Your task to perform on an android device: Toggle the flashlight Image 0: 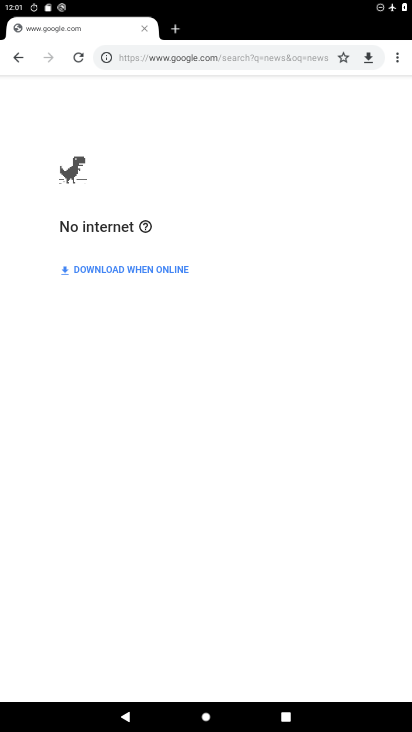
Step 0: press home button
Your task to perform on an android device: Toggle the flashlight Image 1: 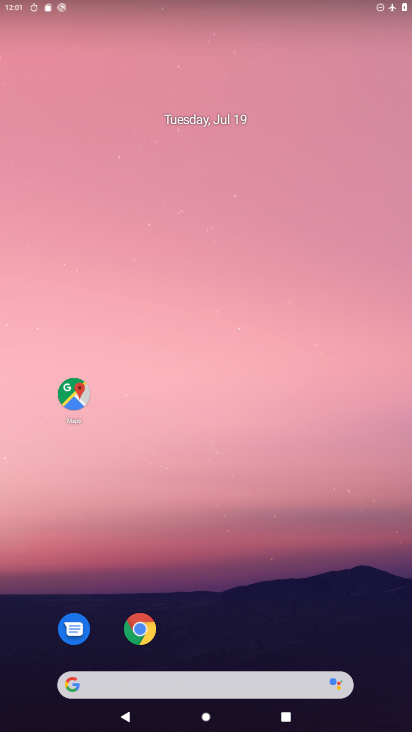
Step 1: drag from (209, 623) to (192, 79)
Your task to perform on an android device: Toggle the flashlight Image 2: 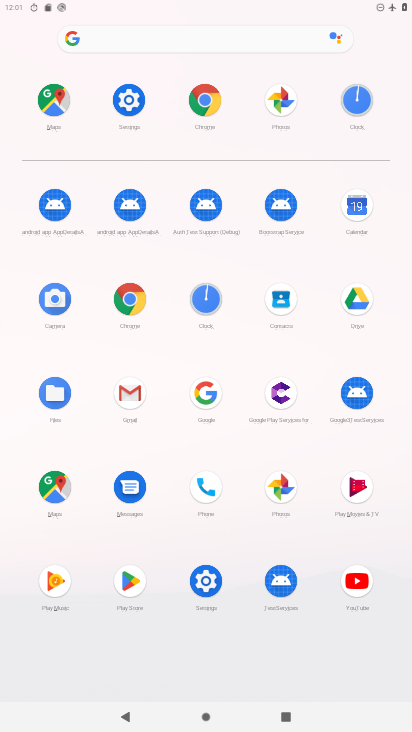
Step 2: click (139, 109)
Your task to perform on an android device: Toggle the flashlight Image 3: 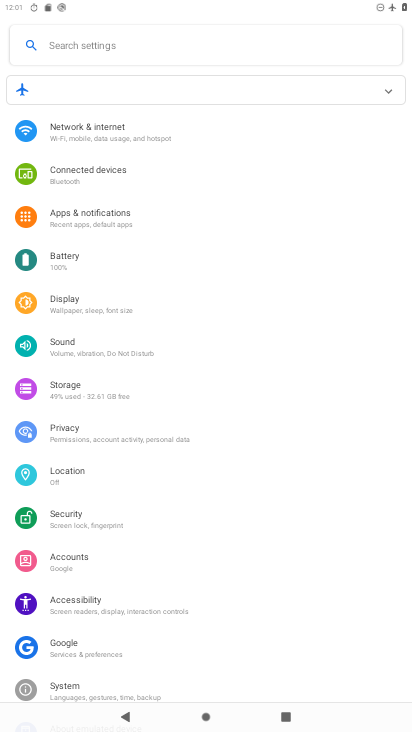
Step 3: click (84, 321)
Your task to perform on an android device: Toggle the flashlight Image 4: 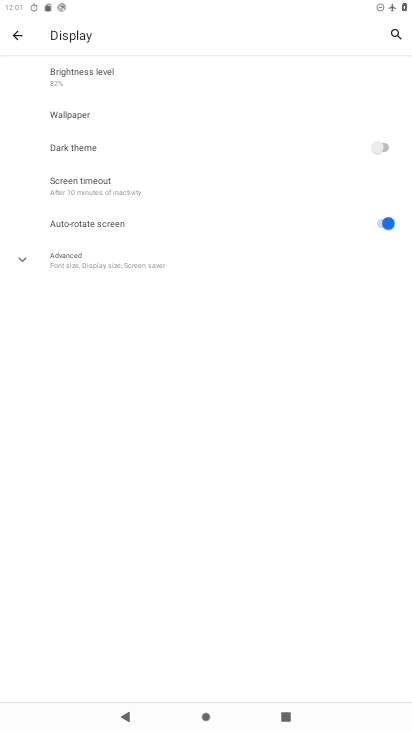
Step 4: task complete